Your task to perform on an android device: Open the calendar app, open the side menu, and click the "Day" option Image 0: 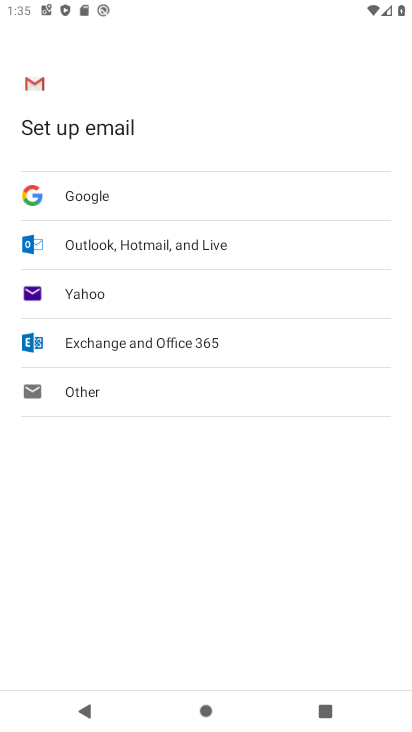
Step 0: press home button
Your task to perform on an android device: Open the calendar app, open the side menu, and click the "Day" option Image 1: 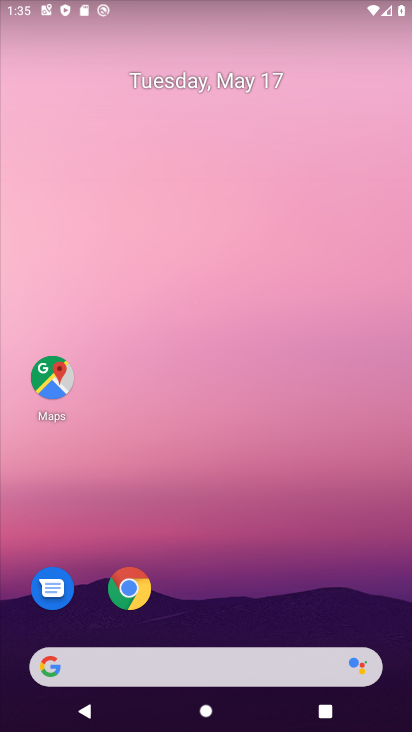
Step 1: drag from (220, 517) to (212, 110)
Your task to perform on an android device: Open the calendar app, open the side menu, and click the "Day" option Image 2: 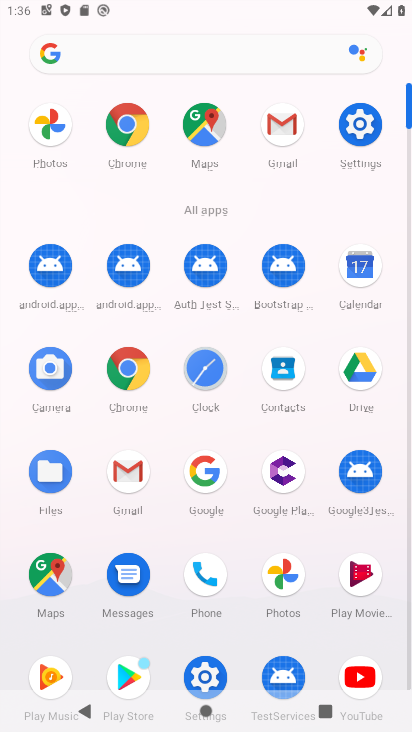
Step 2: click (361, 260)
Your task to perform on an android device: Open the calendar app, open the side menu, and click the "Day" option Image 3: 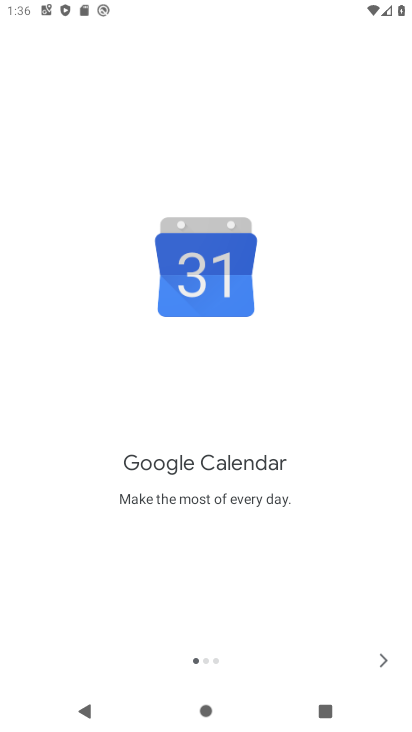
Step 3: click (381, 656)
Your task to perform on an android device: Open the calendar app, open the side menu, and click the "Day" option Image 4: 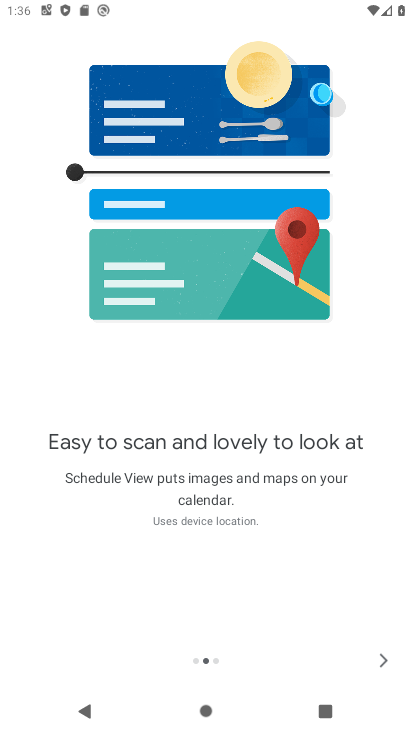
Step 4: click (387, 670)
Your task to perform on an android device: Open the calendar app, open the side menu, and click the "Day" option Image 5: 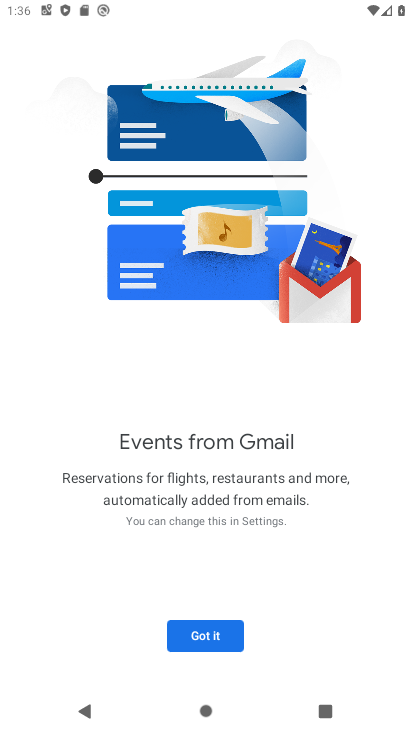
Step 5: click (384, 664)
Your task to perform on an android device: Open the calendar app, open the side menu, and click the "Day" option Image 6: 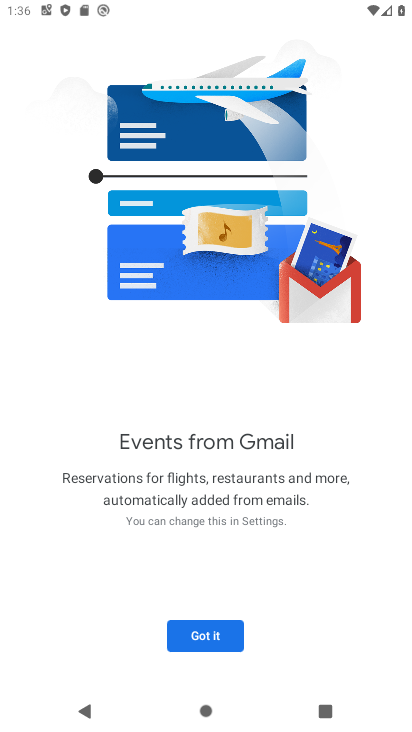
Step 6: click (212, 641)
Your task to perform on an android device: Open the calendar app, open the side menu, and click the "Day" option Image 7: 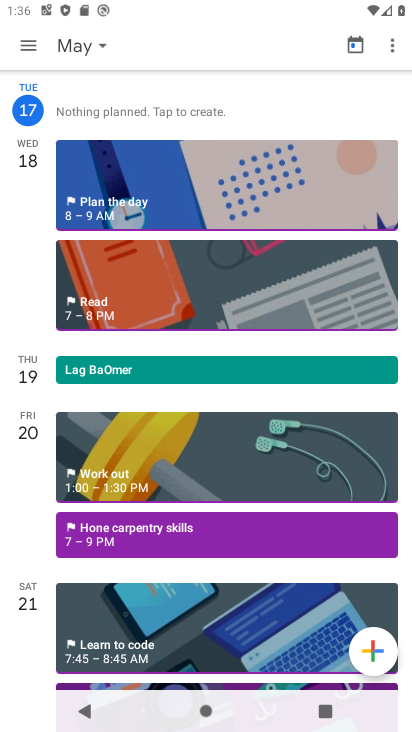
Step 7: click (21, 40)
Your task to perform on an android device: Open the calendar app, open the side menu, and click the "Day" option Image 8: 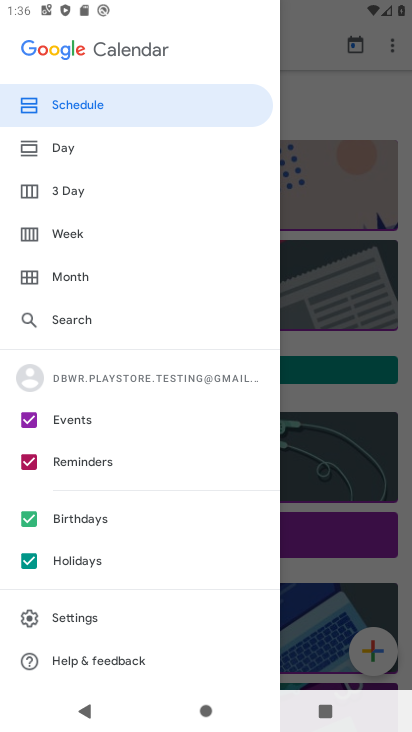
Step 8: click (23, 151)
Your task to perform on an android device: Open the calendar app, open the side menu, and click the "Day" option Image 9: 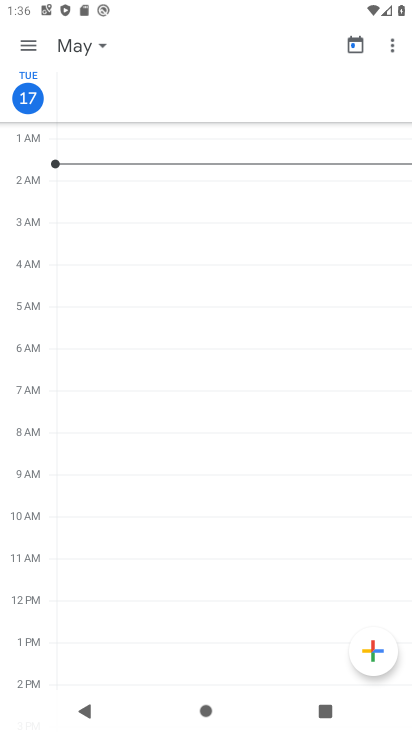
Step 9: task complete